Your task to perform on an android device: open app "Facebook" (install if not already installed) Image 0: 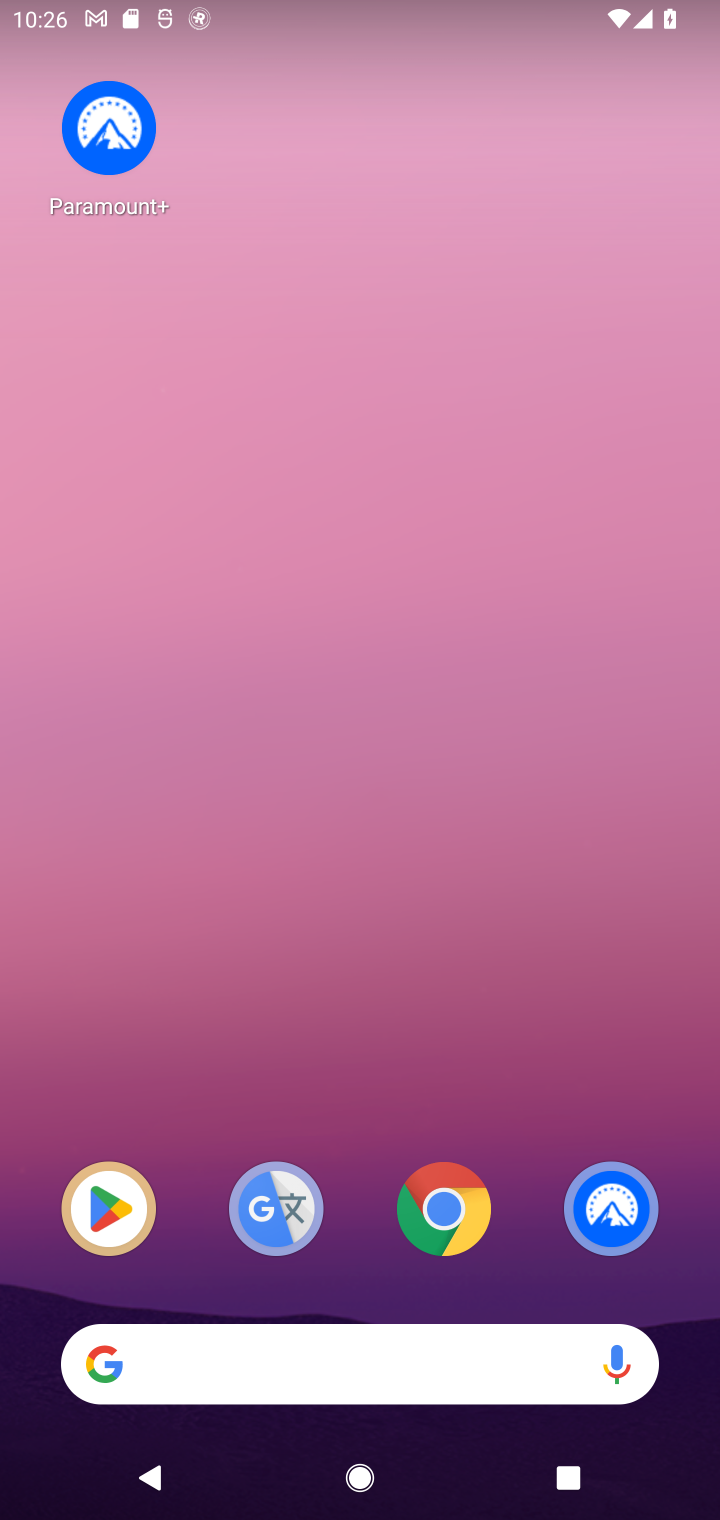
Step 0: press home button
Your task to perform on an android device: open app "Facebook" (install if not already installed) Image 1: 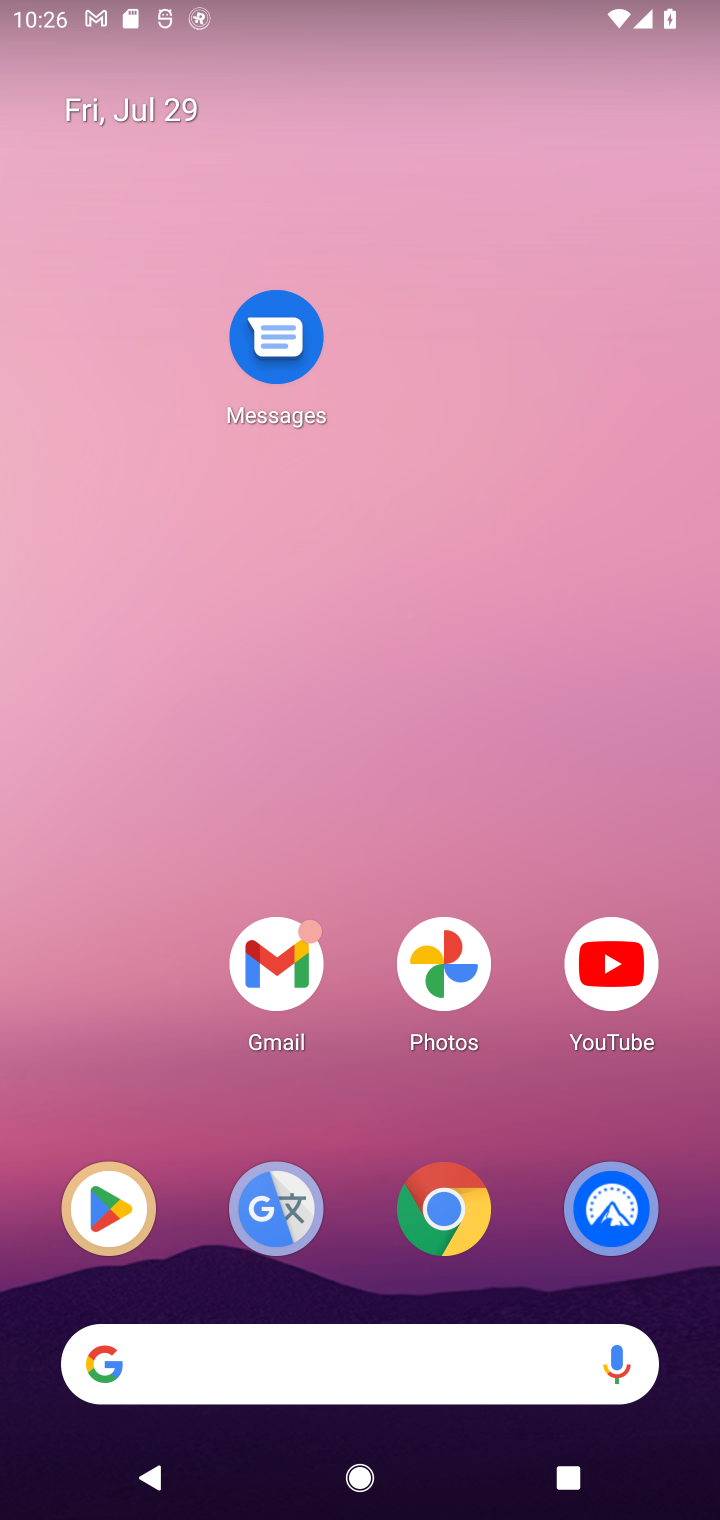
Step 1: drag from (366, 1338) to (534, 427)
Your task to perform on an android device: open app "Facebook" (install if not already installed) Image 2: 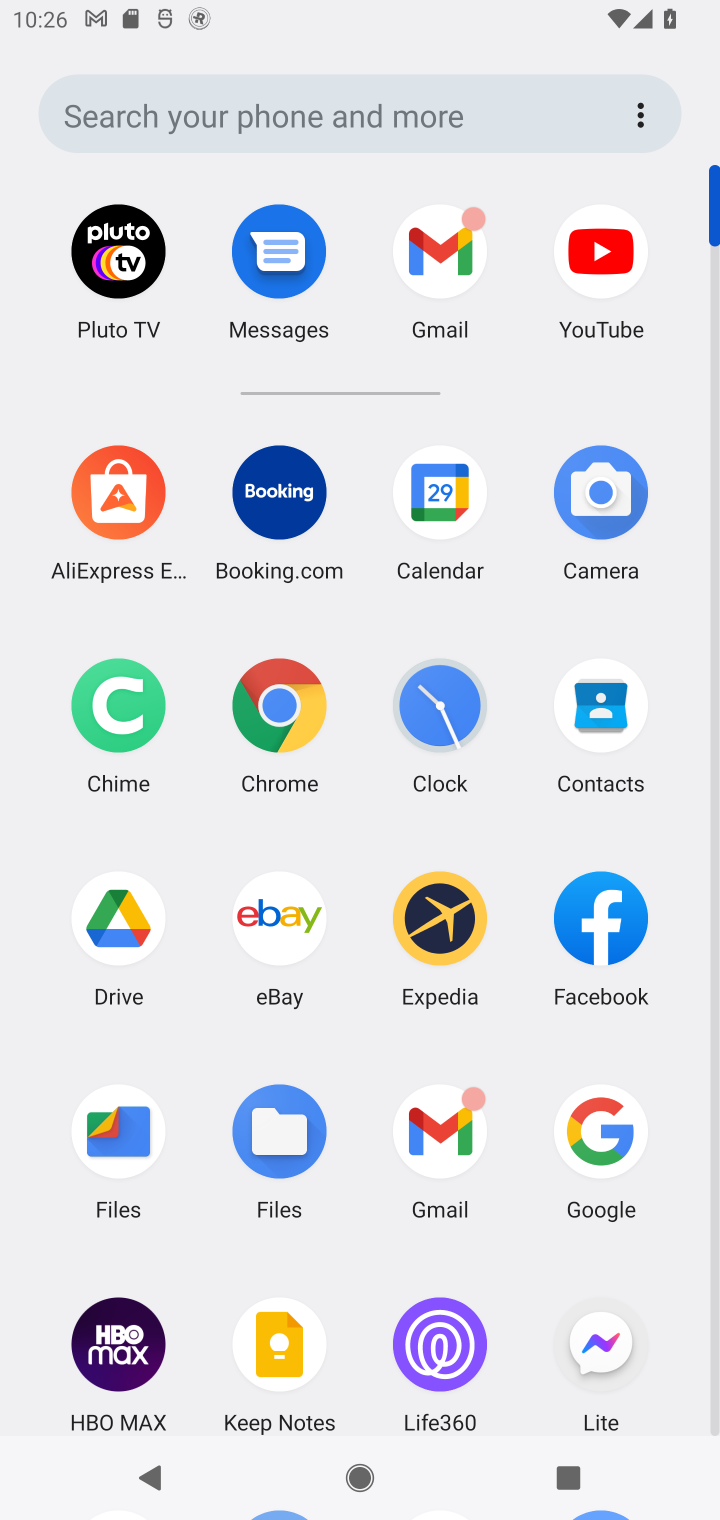
Step 2: drag from (350, 1243) to (346, 350)
Your task to perform on an android device: open app "Facebook" (install if not already installed) Image 3: 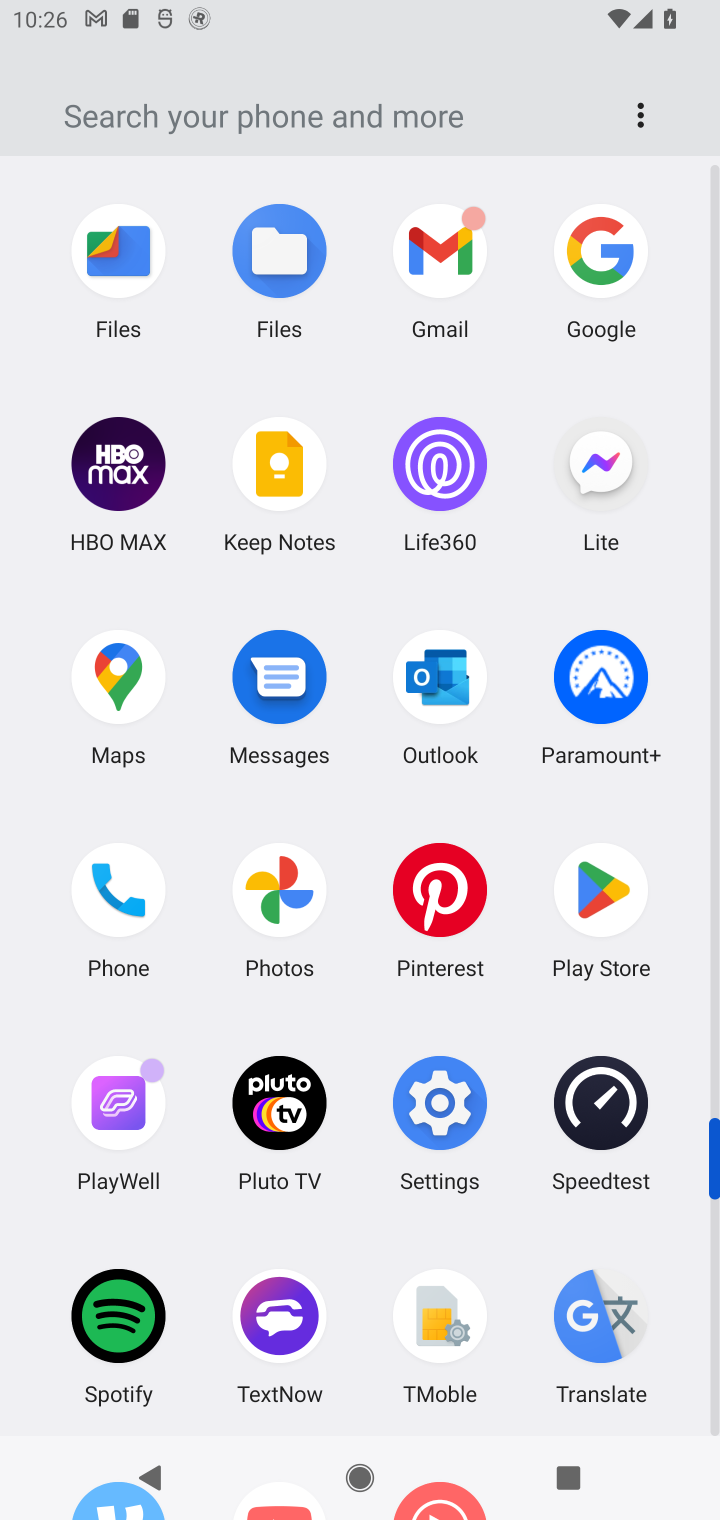
Step 3: click (594, 908)
Your task to perform on an android device: open app "Facebook" (install if not already installed) Image 4: 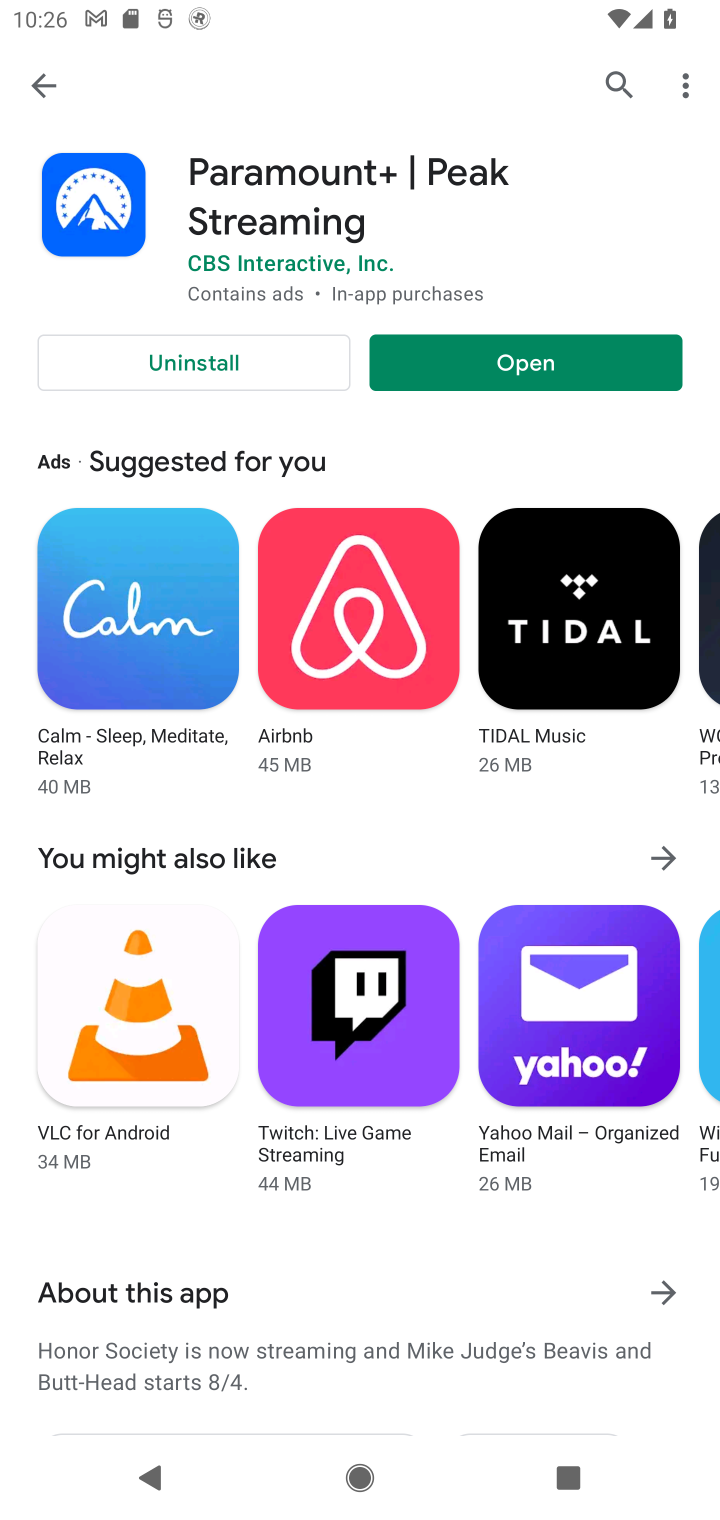
Step 4: click (619, 75)
Your task to perform on an android device: open app "Facebook" (install if not already installed) Image 5: 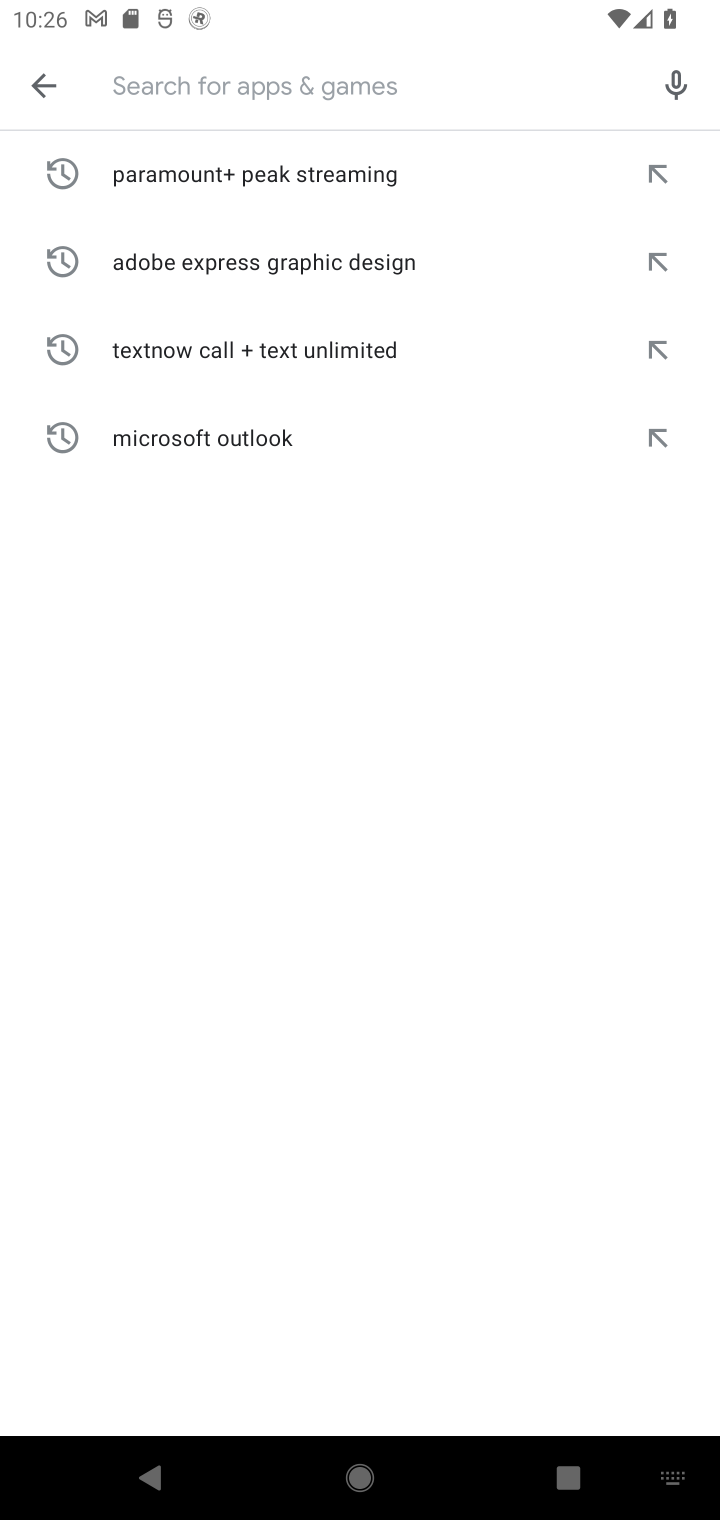
Step 5: type "Facebook"
Your task to perform on an android device: open app "Facebook" (install if not already installed) Image 6: 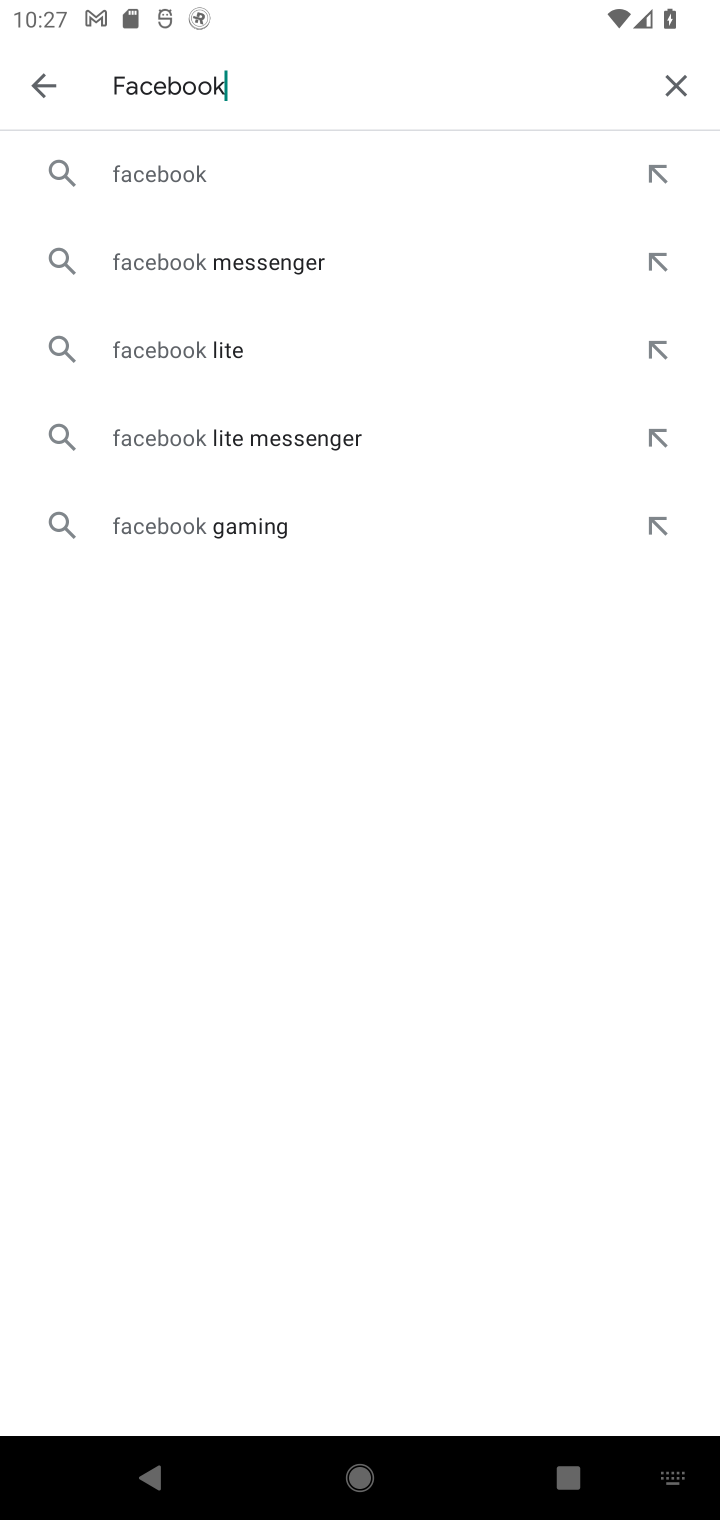
Step 6: click (159, 171)
Your task to perform on an android device: open app "Facebook" (install if not already installed) Image 7: 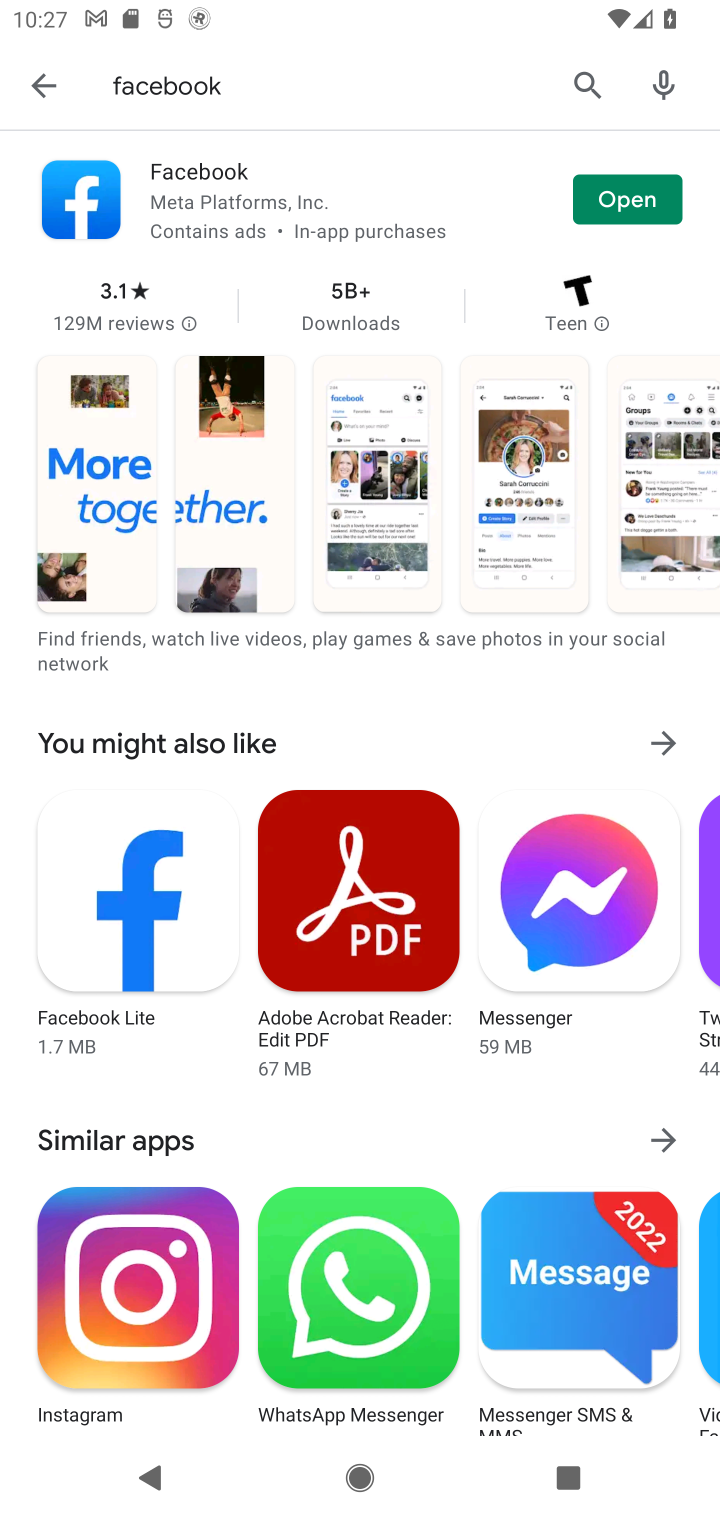
Step 7: click (621, 192)
Your task to perform on an android device: open app "Facebook" (install if not already installed) Image 8: 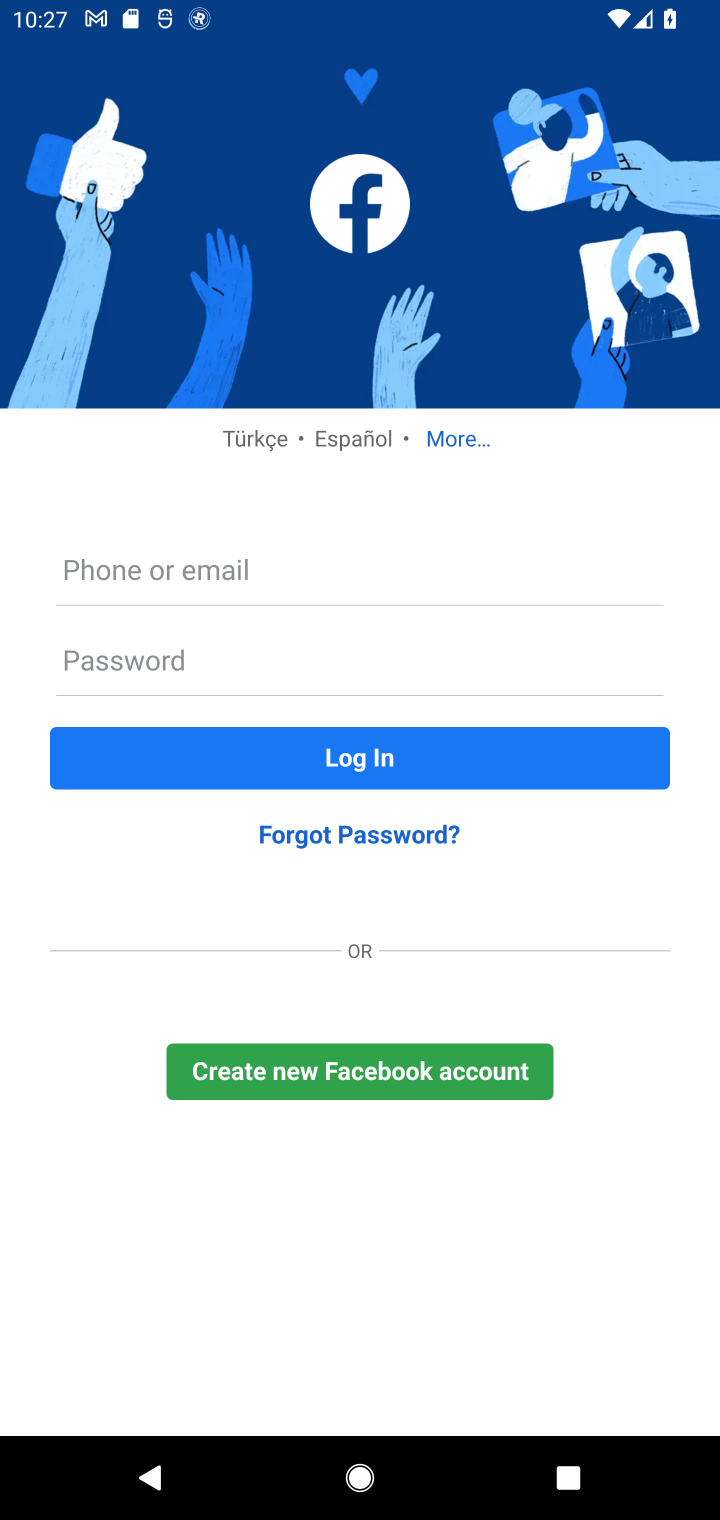
Step 8: task complete